Your task to perform on an android device: toggle pop-ups in chrome Image 0: 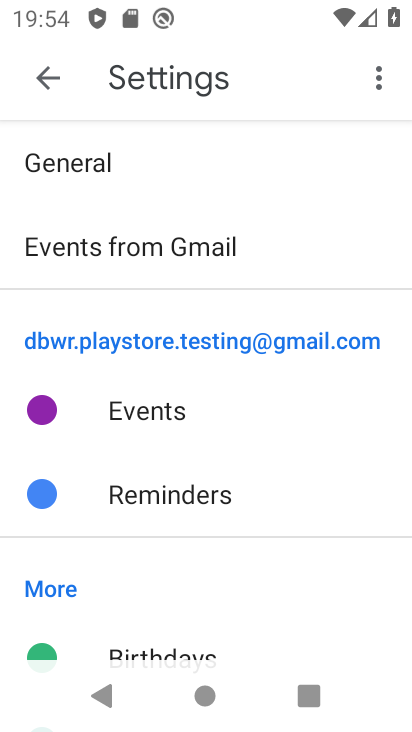
Step 0: press home button
Your task to perform on an android device: toggle pop-ups in chrome Image 1: 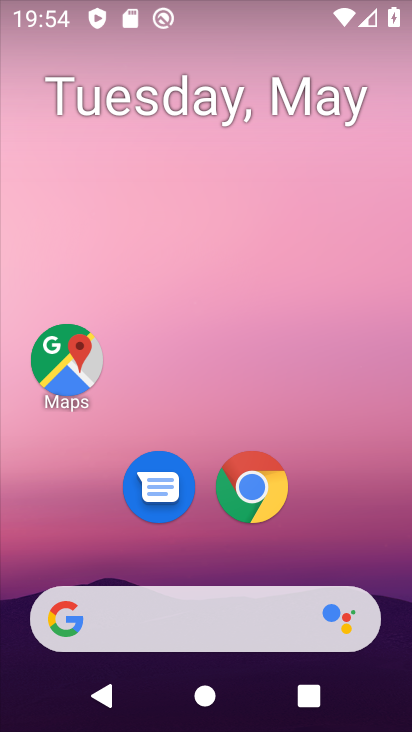
Step 1: click (269, 488)
Your task to perform on an android device: toggle pop-ups in chrome Image 2: 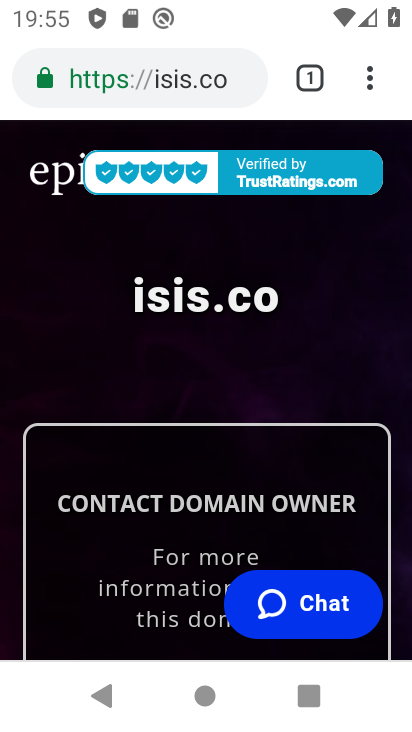
Step 2: click (378, 70)
Your task to perform on an android device: toggle pop-ups in chrome Image 3: 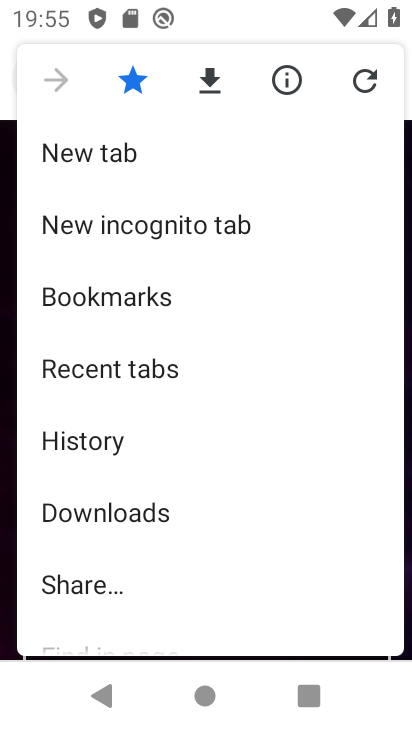
Step 3: drag from (222, 512) to (280, 219)
Your task to perform on an android device: toggle pop-ups in chrome Image 4: 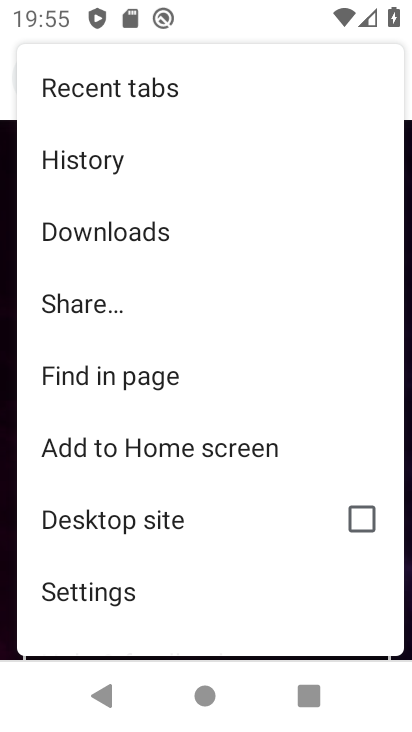
Step 4: click (190, 597)
Your task to perform on an android device: toggle pop-ups in chrome Image 5: 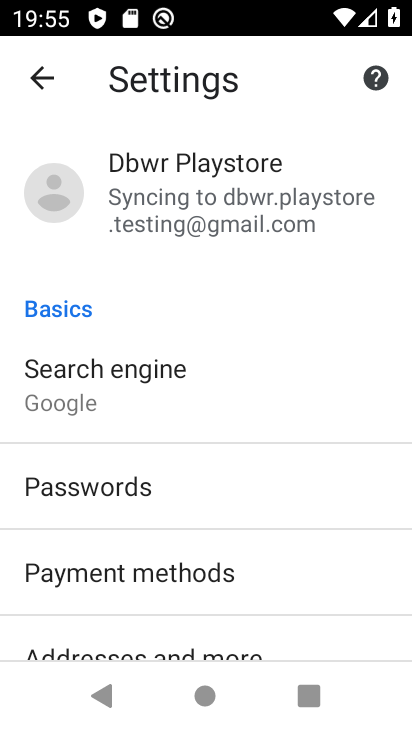
Step 5: drag from (211, 589) to (216, 346)
Your task to perform on an android device: toggle pop-ups in chrome Image 6: 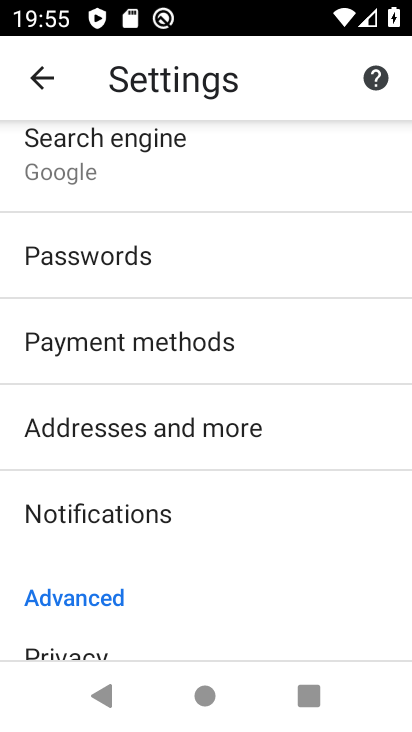
Step 6: drag from (224, 505) to (286, 258)
Your task to perform on an android device: toggle pop-ups in chrome Image 7: 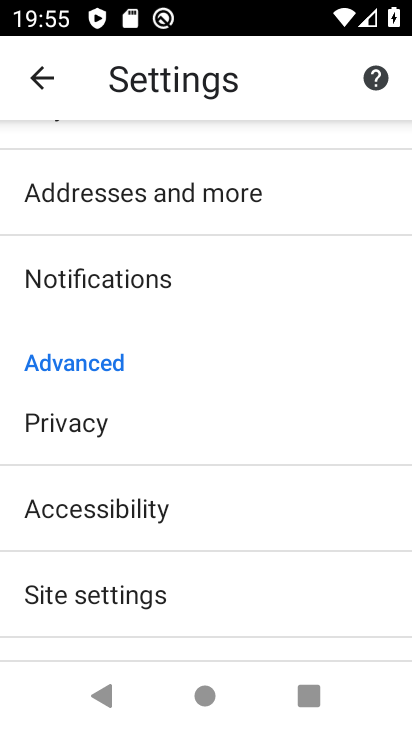
Step 7: click (230, 568)
Your task to perform on an android device: toggle pop-ups in chrome Image 8: 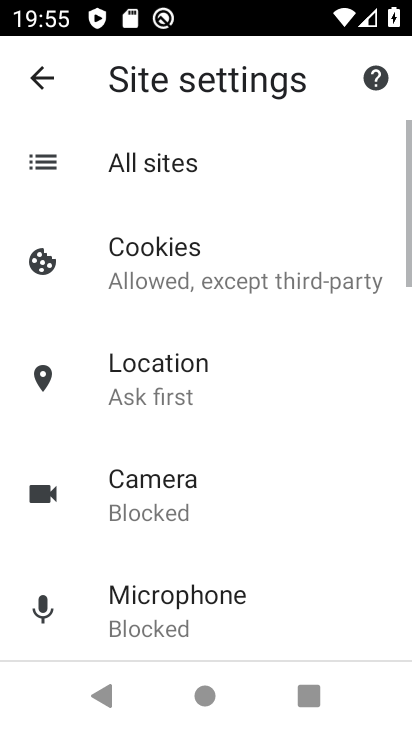
Step 8: drag from (263, 522) to (305, 152)
Your task to perform on an android device: toggle pop-ups in chrome Image 9: 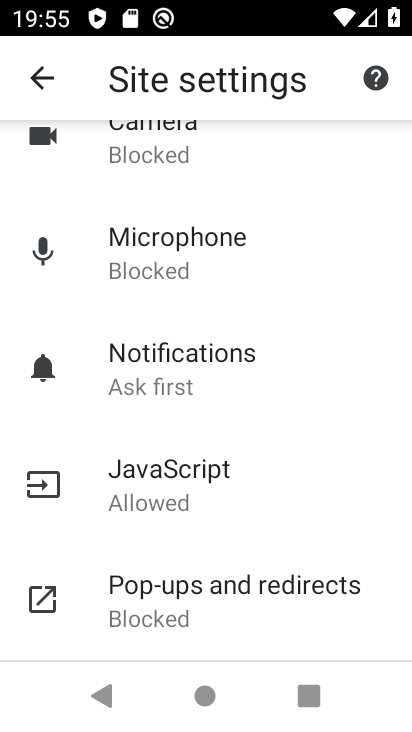
Step 9: click (257, 609)
Your task to perform on an android device: toggle pop-ups in chrome Image 10: 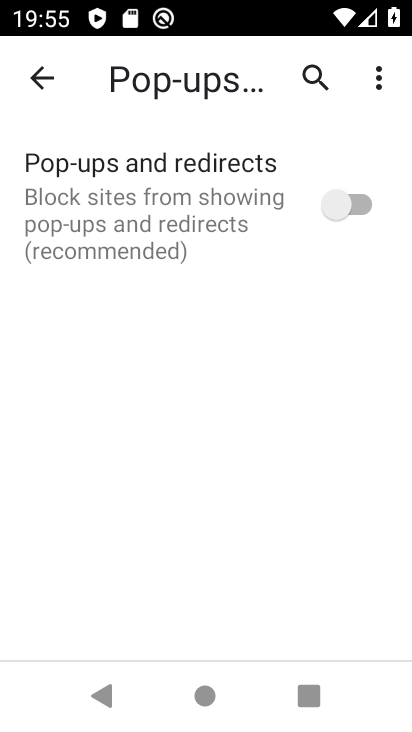
Step 10: click (332, 221)
Your task to perform on an android device: toggle pop-ups in chrome Image 11: 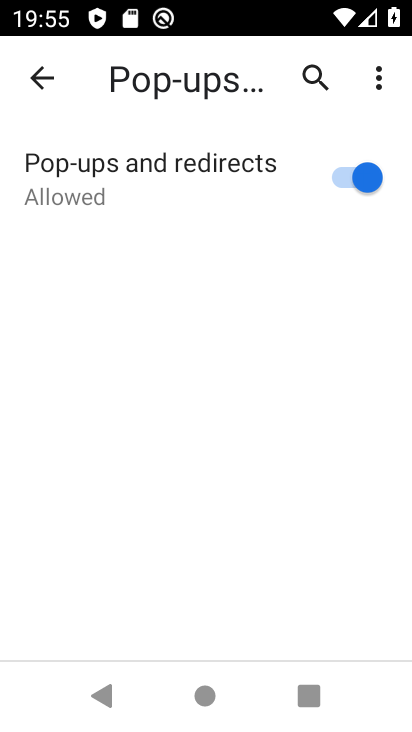
Step 11: task complete